Your task to perform on an android device: Show me recent news Image 0: 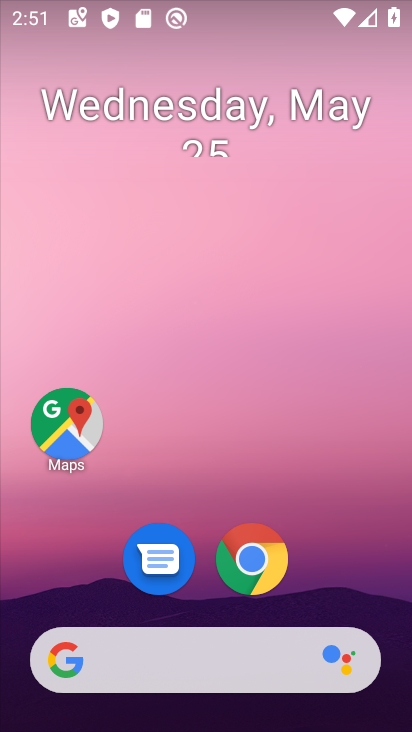
Step 0: drag from (7, 312) to (385, 240)
Your task to perform on an android device: Show me recent news Image 1: 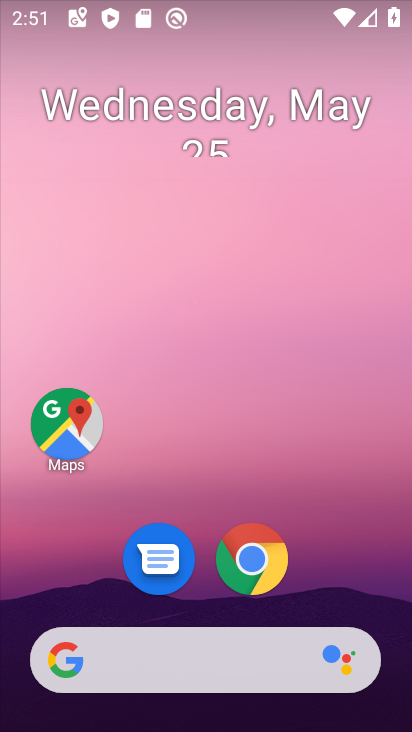
Step 1: task complete